Your task to perform on an android device: Open network settings Image 0: 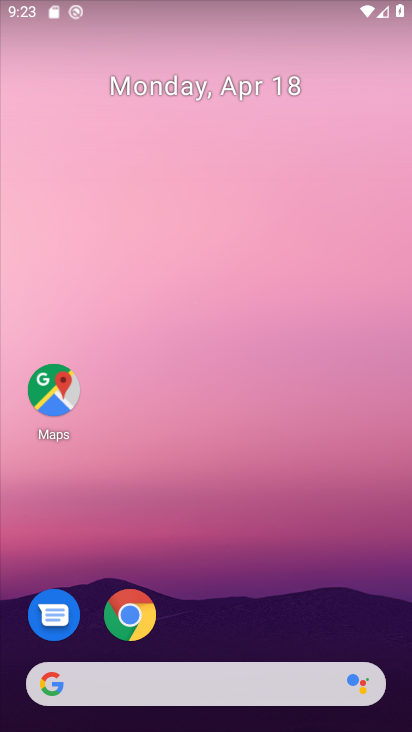
Step 0: drag from (138, 25) to (379, 23)
Your task to perform on an android device: Open network settings Image 1: 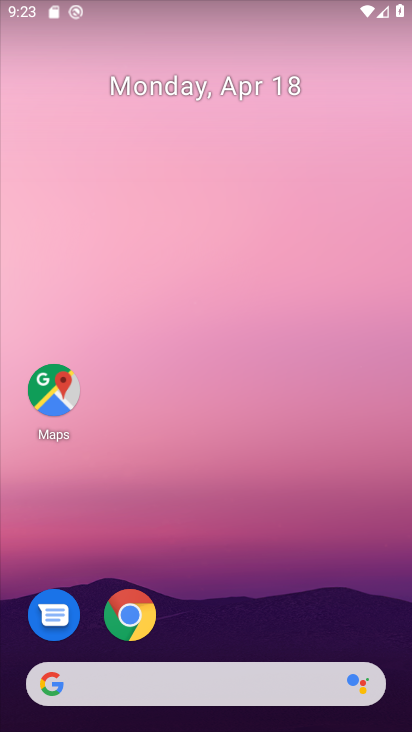
Step 1: drag from (222, 496) to (143, 53)
Your task to perform on an android device: Open network settings Image 2: 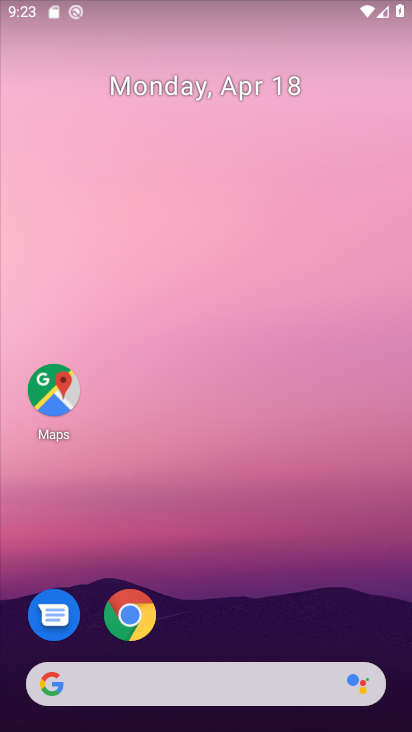
Step 2: drag from (133, 114) to (98, 105)
Your task to perform on an android device: Open network settings Image 3: 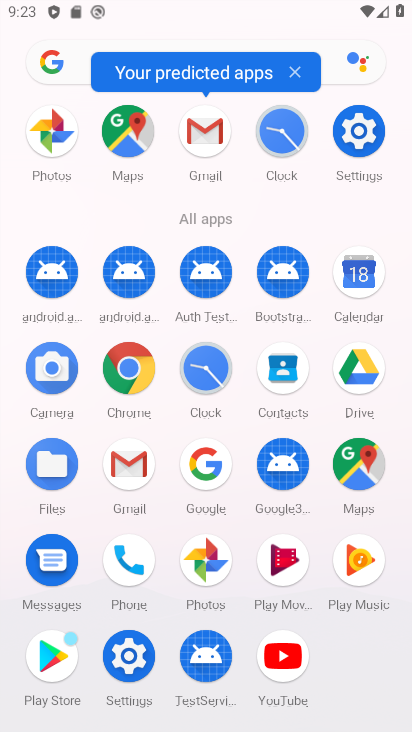
Step 3: click (360, 136)
Your task to perform on an android device: Open network settings Image 4: 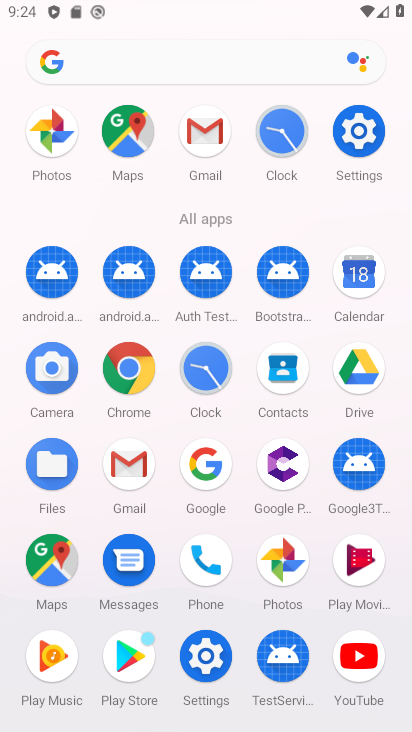
Step 4: click (359, 129)
Your task to perform on an android device: Open network settings Image 5: 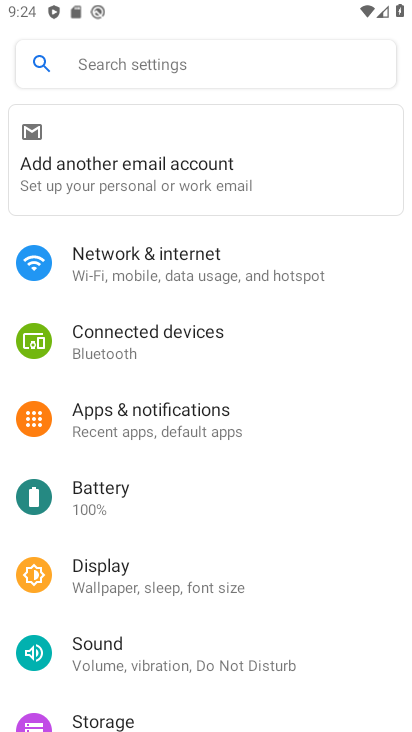
Step 5: click (153, 264)
Your task to perform on an android device: Open network settings Image 6: 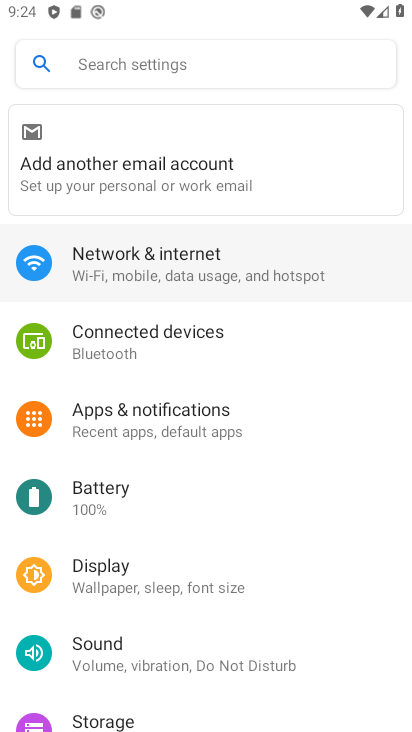
Step 6: click (154, 264)
Your task to perform on an android device: Open network settings Image 7: 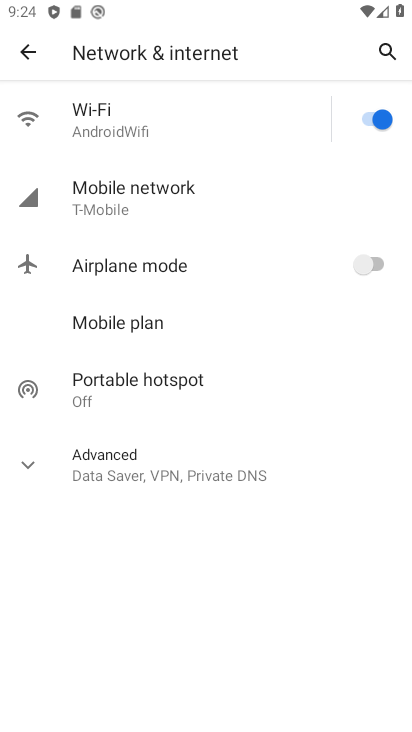
Step 7: task complete